Your task to perform on an android device: remove spam from my inbox in the gmail app Image 0: 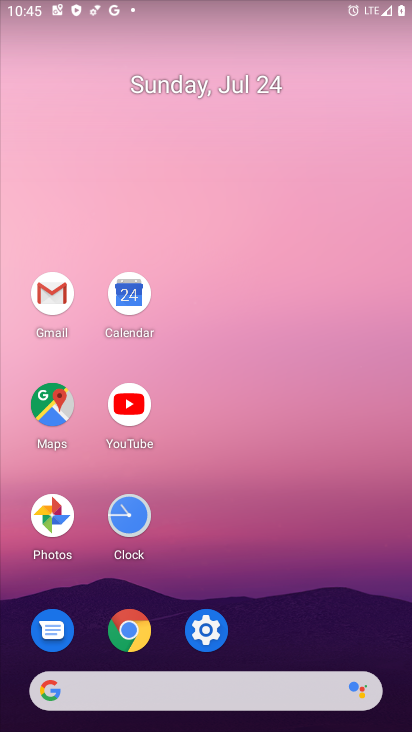
Step 0: click (41, 301)
Your task to perform on an android device: remove spam from my inbox in the gmail app Image 1: 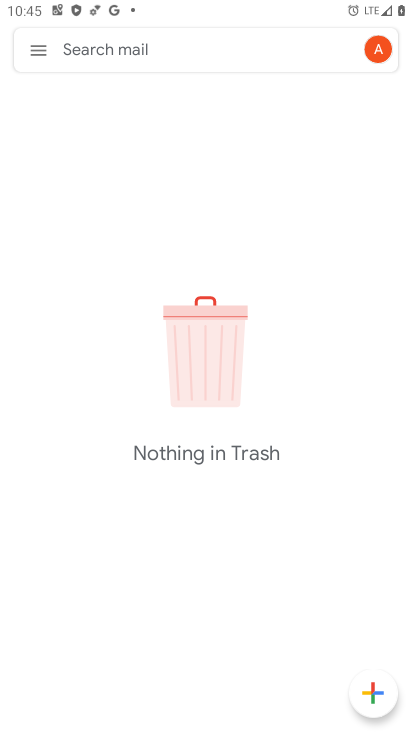
Step 1: click (31, 42)
Your task to perform on an android device: remove spam from my inbox in the gmail app Image 2: 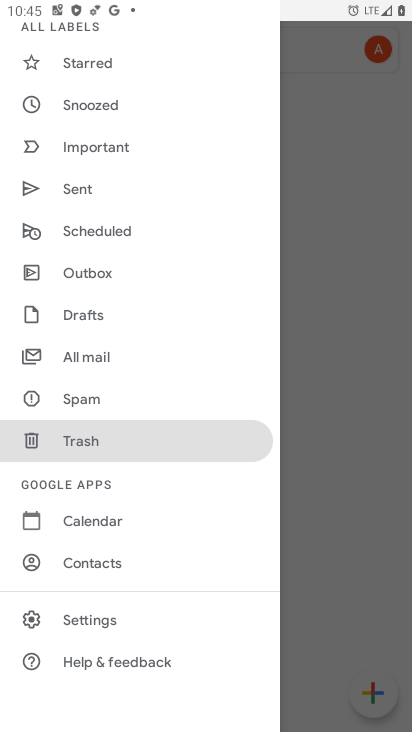
Step 2: click (90, 391)
Your task to perform on an android device: remove spam from my inbox in the gmail app Image 3: 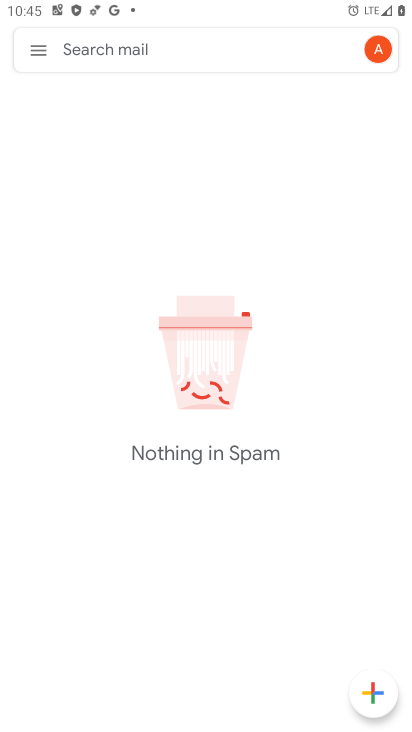
Step 3: task complete